Your task to perform on an android device: choose inbox layout in the gmail app Image 0: 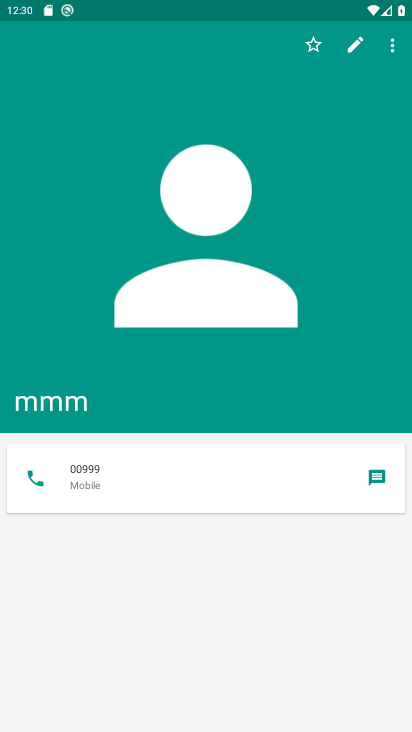
Step 0: press home button
Your task to perform on an android device: choose inbox layout in the gmail app Image 1: 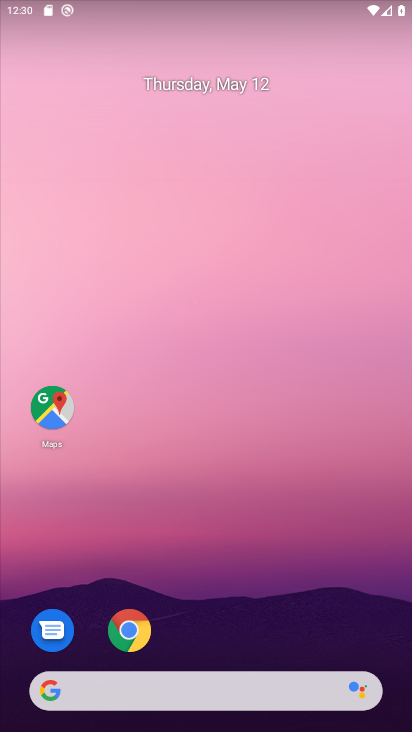
Step 1: drag from (270, 572) to (339, 174)
Your task to perform on an android device: choose inbox layout in the gmail app Image 2: 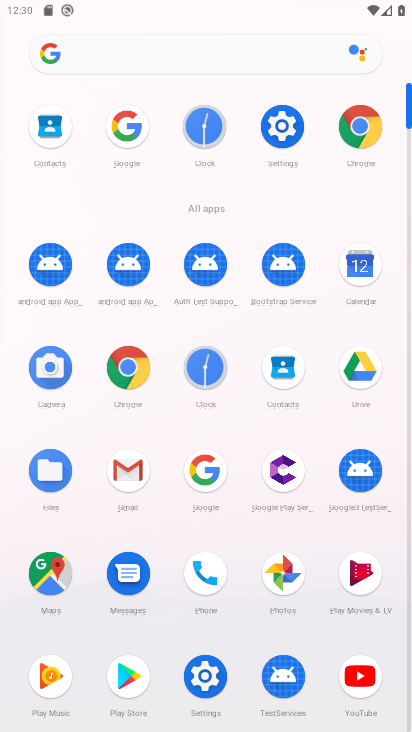
Step 2: click (118, 478)
Your task to perform on an android device: choose inbox layout in the gmail app Image 3: 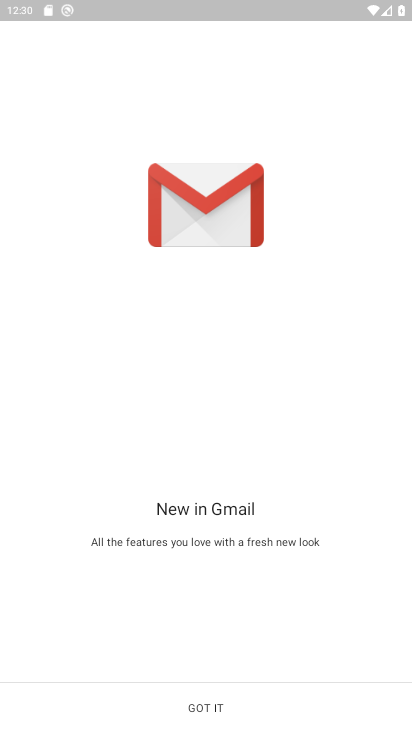
Step 3: click (236, 712)
Your task to perform on an android device: choose inbox layout in the gmail app Image 4: 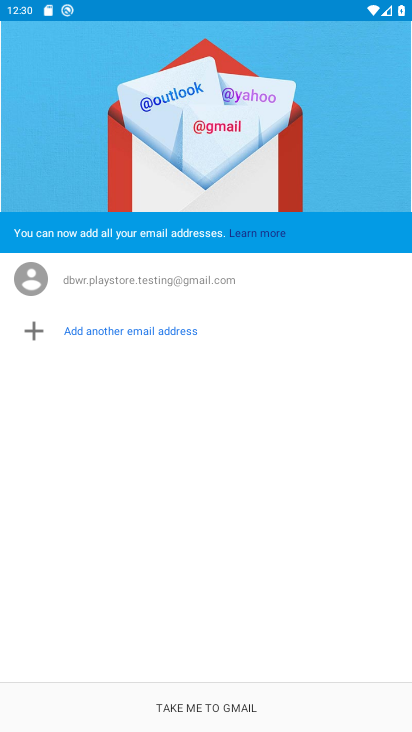
Step 4: click (236, 712)
Your task to perform on an android device: choose inbox layout in the gmail app Image 5: 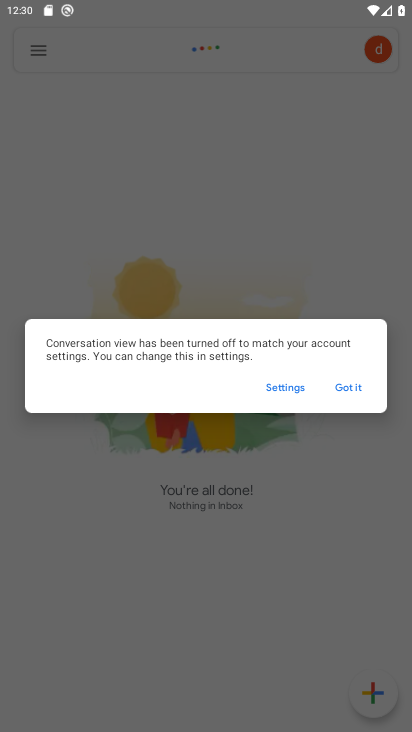
Step 5: click (351, 381)
Your task to perform on an android device: choose inbox layout in the gmail app Image 6: 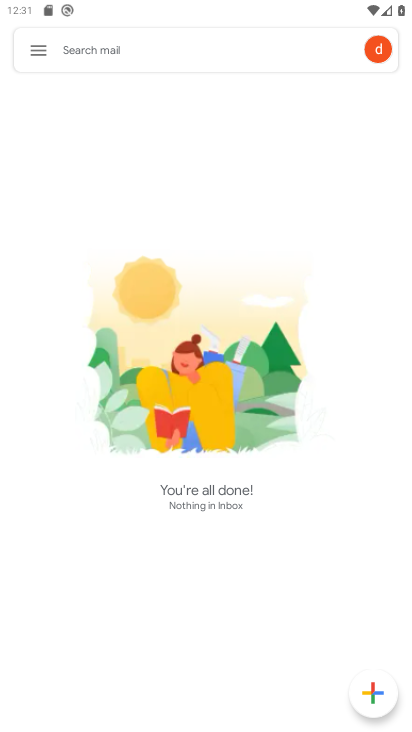
Step 6: click (35, 46)
Your task to perform on an android device: choose inbox layout in the gmail app Image 7: 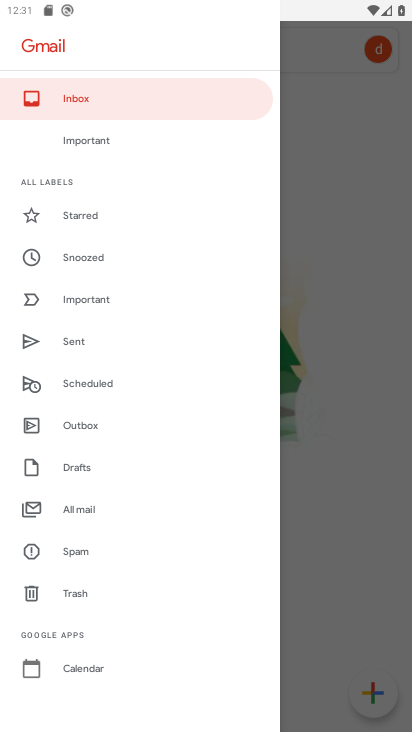
Step 7: drag from (159, 596) to (160, 204)
Your task to perform on an android device: choose inbox layout in the gmail app Image 8: 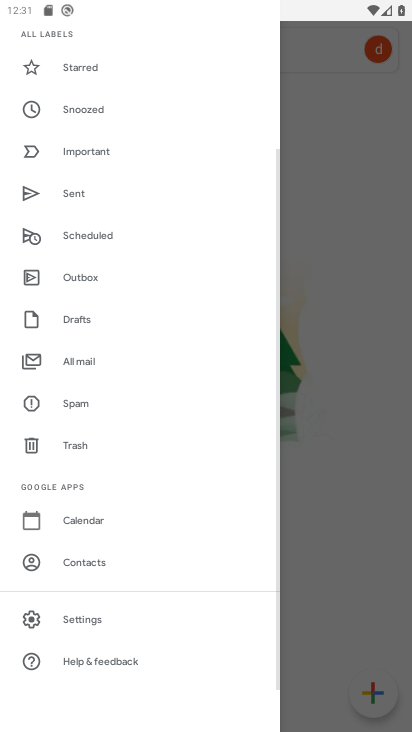
Step 8: click (69, 614)
Your task to perform on an android device: choose inbox layout in the gmail app Image 9: 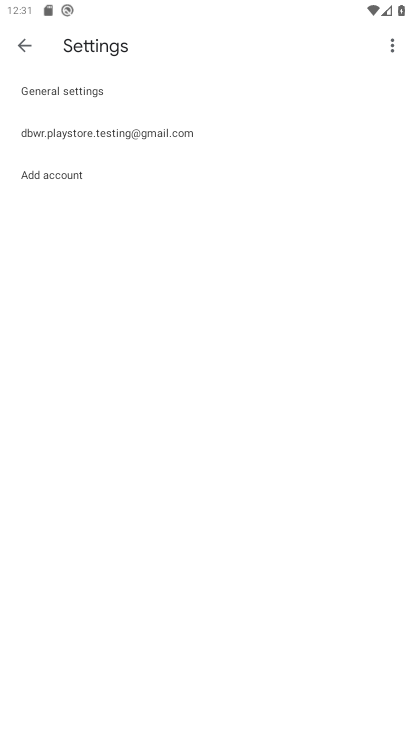
Step 9: click (163, 129)
Your task to perform on an android device: choose inbox layout in the gmail app Image 10: 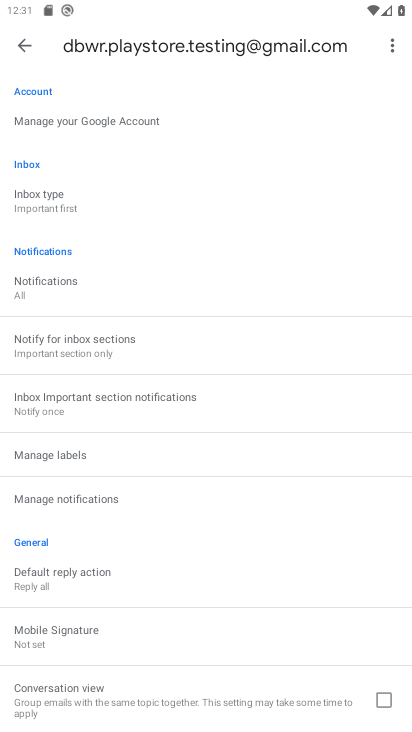
Step 10: click (41, 198)
Your task to perform on an android device: choose inbox layout in the gmail app Image 11: 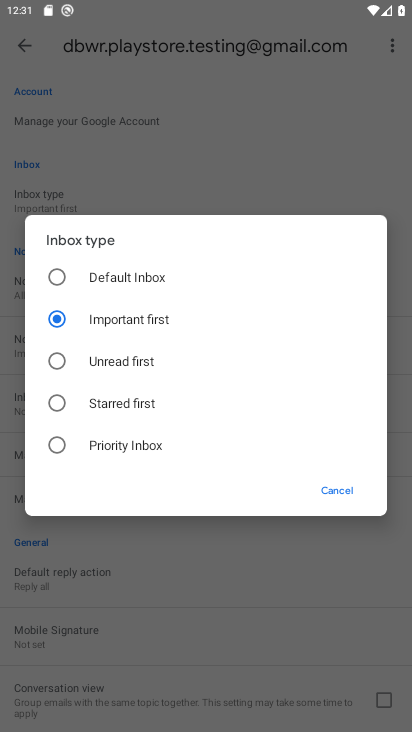
Step 11: click (108, 443)
Your task to perform on an android device: choose inbox layout in the gmail app Image 12: 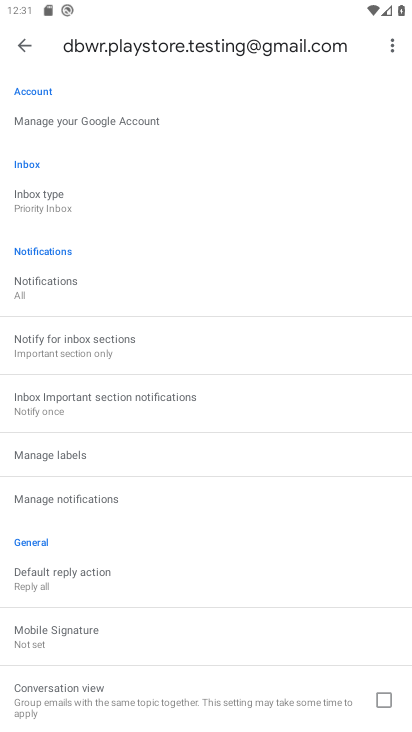
Step 12: task complete